Your task to perform on an android device: add a contact in the contacts app Image 0: 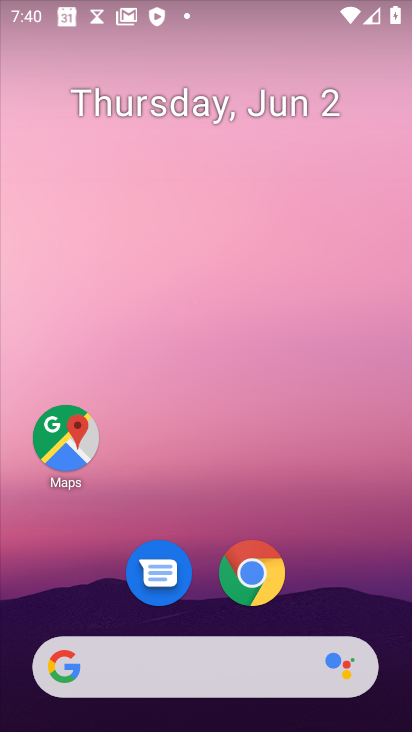
Step 0: drag from (126, 665) to (297, 143)
Your task to perform on an android device: add a contact in the contacts app Image 1: 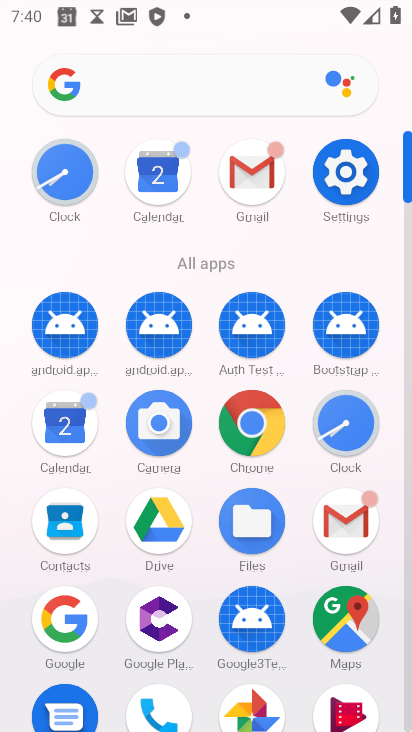
Step 1: drag from (187, 594) to (299, 249)
Your task to perform on an android device: add a contact in the contacts app Image 2: 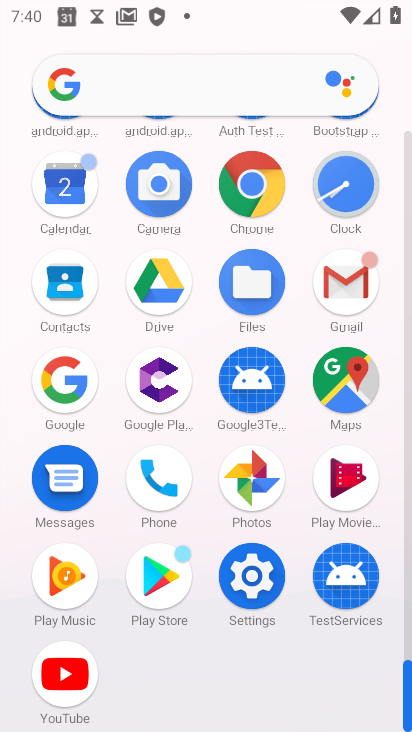
Step 2: click (54, 286)
Your task to perform on an android device: add a contact in the contacts app Image 3: 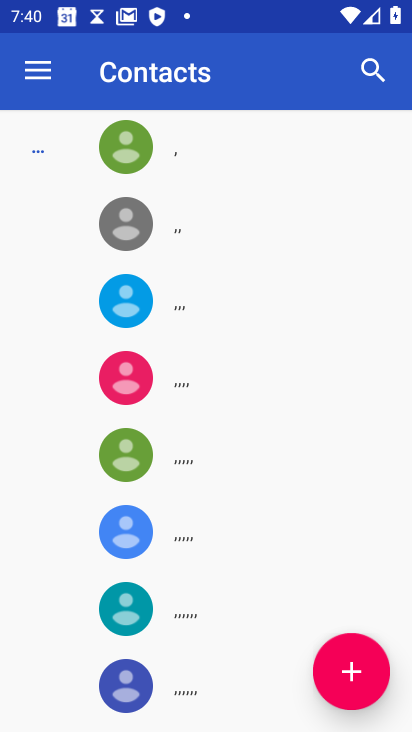
Step 3: click (342, 671)
Your task to perform on an android device: add a contact in the contacts app Image 4: 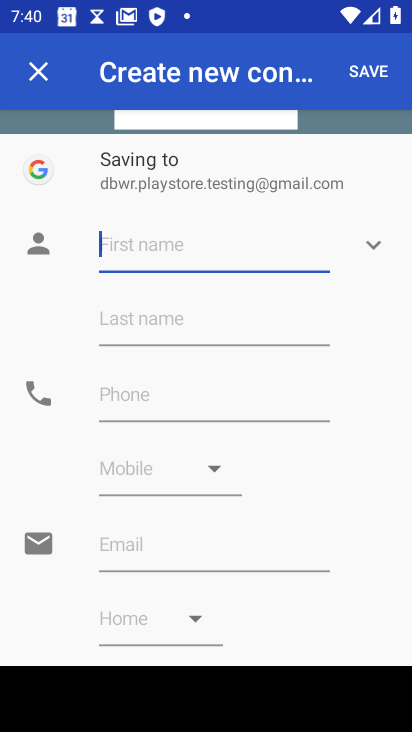
Step 4: click (125, 236)
Your task to perform on an android device: add a contact in the contacts app Image 5: 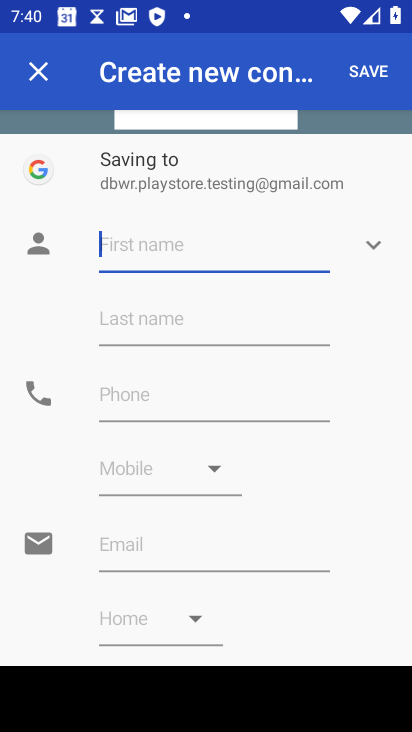
Step 5: type "nhyyuugg"
Your task to perform on an android device: add a contact in the contacts app Image 6: 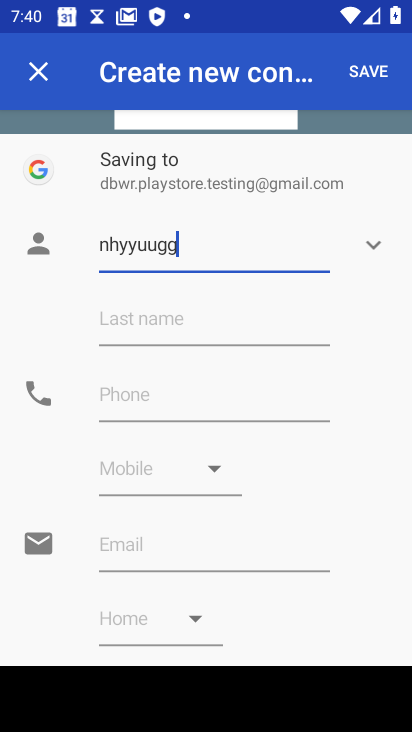
Step 6: click (113, 380)
Your task to perform on an android device: add a contact in the contacts app Image 7: 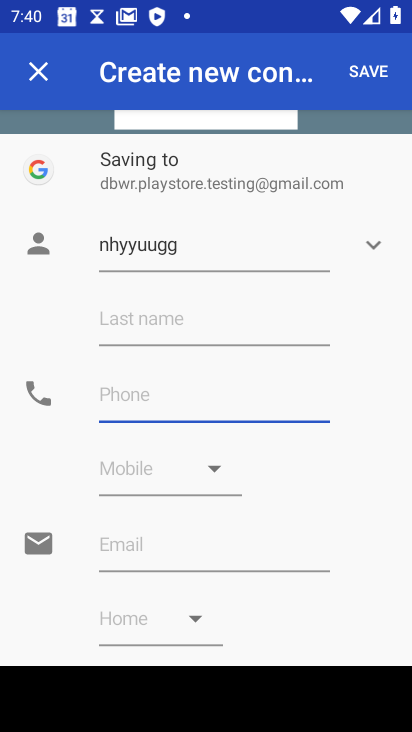
Step 7: type "5666744"
Your task to perform on an android device: add a contact in the contacts app Image 8: 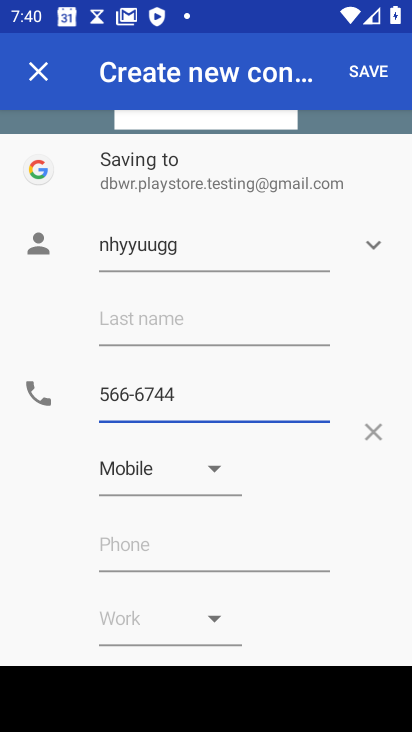
Step 8: click (375, 68)
Your task to perform on an android device: add a contact in the contacts app Image 9: 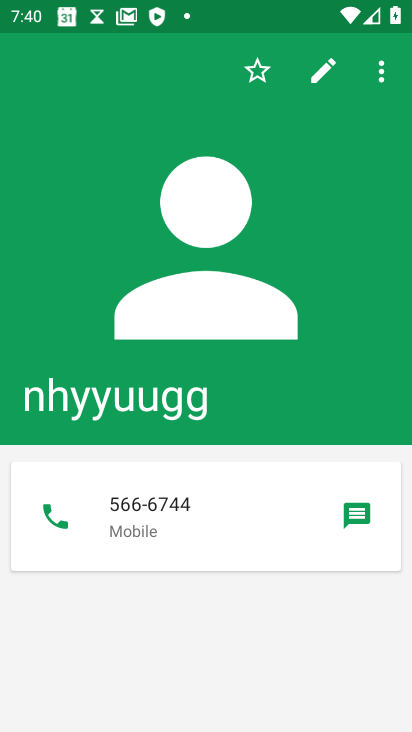
Step 9: task complete